Your task to perform on an android device: turn notification dots on Image 0: 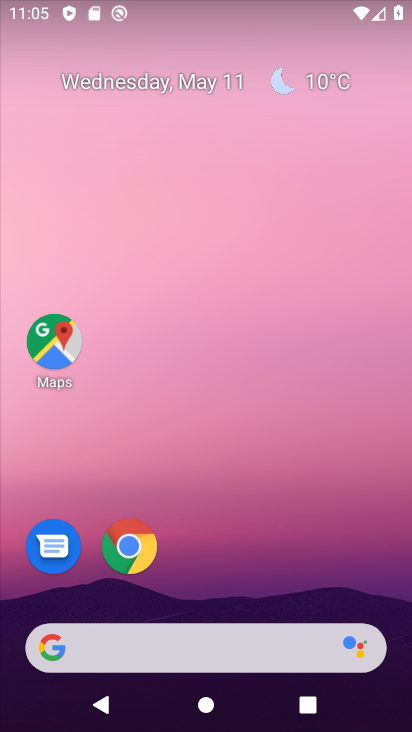
Step 0: drag from (182, 618) to (122, 15)
Your task to perform on an android device: turn notification dots on Image 1: 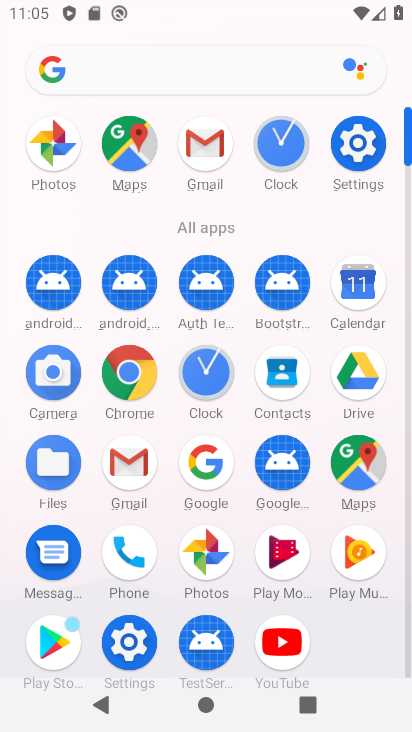
Step 1: click (361, 167)
Your task to perform on an android device: turn notification dots on Image 2: 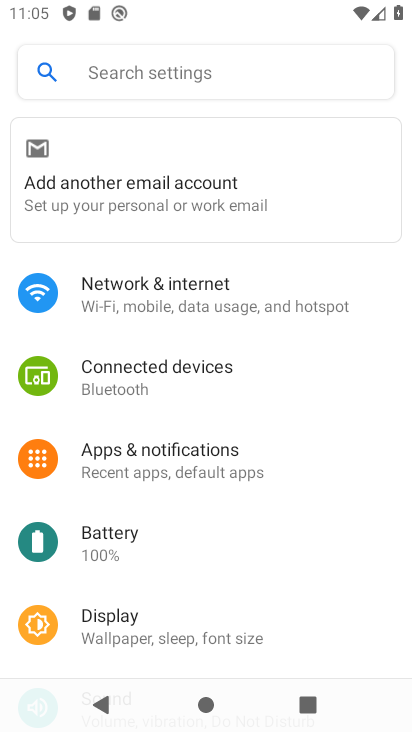
Step 2: click (163, 472)
Your task to perform on an android device: turn notification dots on Image 3: 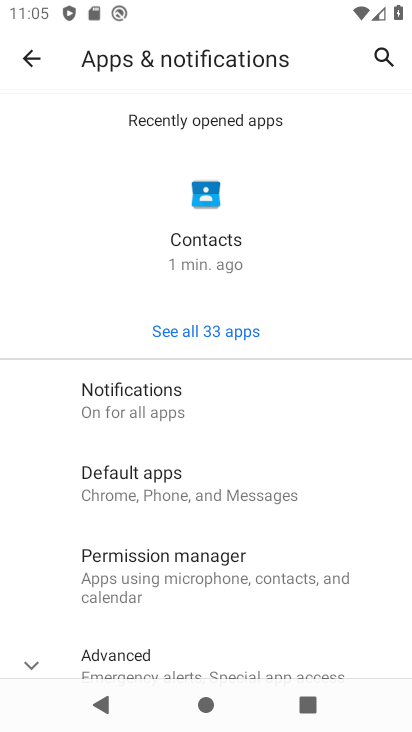
Step 3: click (177, 406)
Your task to perform on an android device: turn notification dots on Image 4: 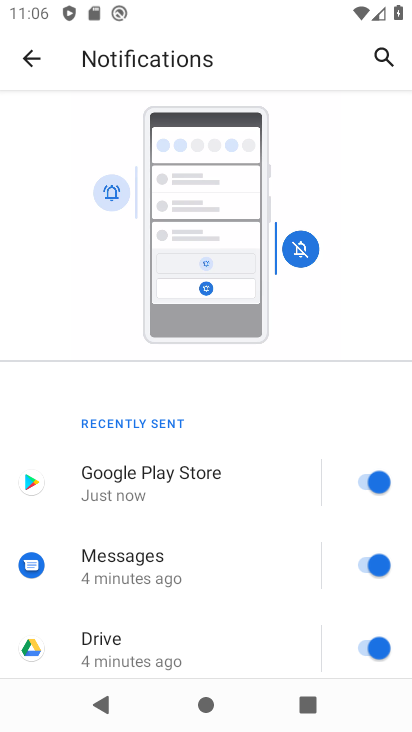
Step 4: drag from (227, 526) to (27, 32)
Your task to perform on an android device: turn notification dots on Image 5: 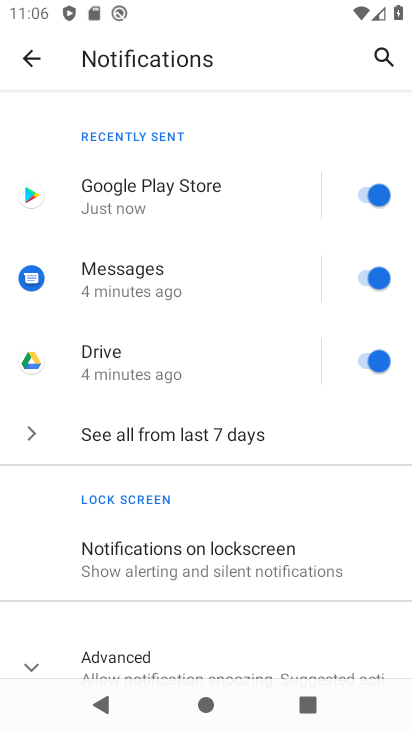
Step 5: drag from (146, 594) to (138, 294)
Your task to perform on an android device: turn notification dots on Image 6: 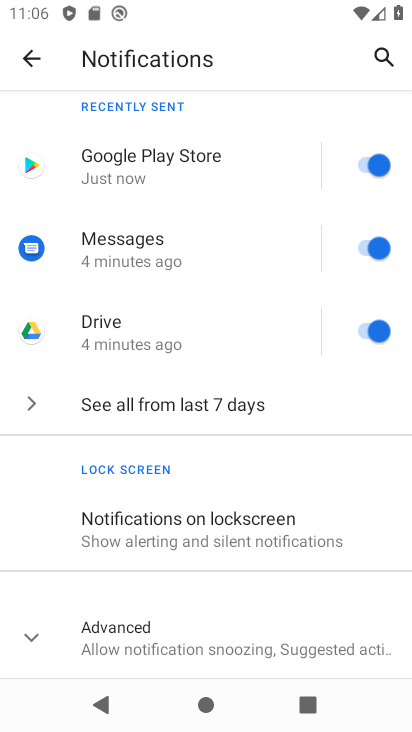
Step 6: click (180, 639)
Your task to perform on an android device: turn notification dots on Image 7: 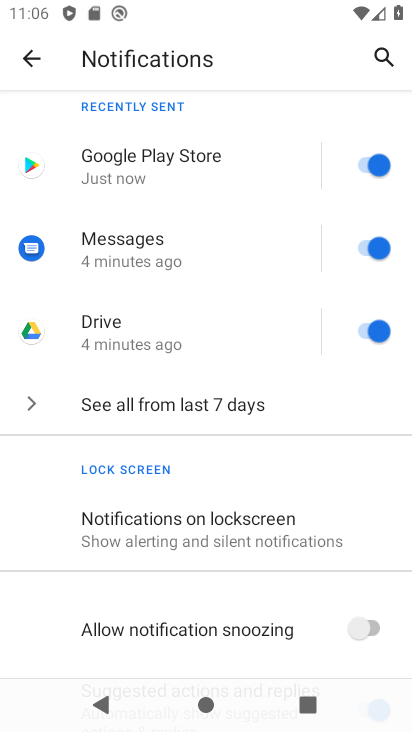
Step 7: task complete